Your task to perform on an android device: Open battery settings Image 0: 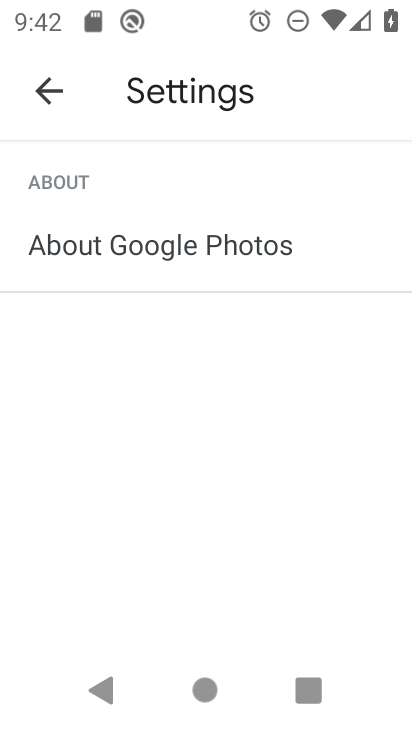
Step 0: press home button
Your task to perform on an android device: Open battery settings Image 1: 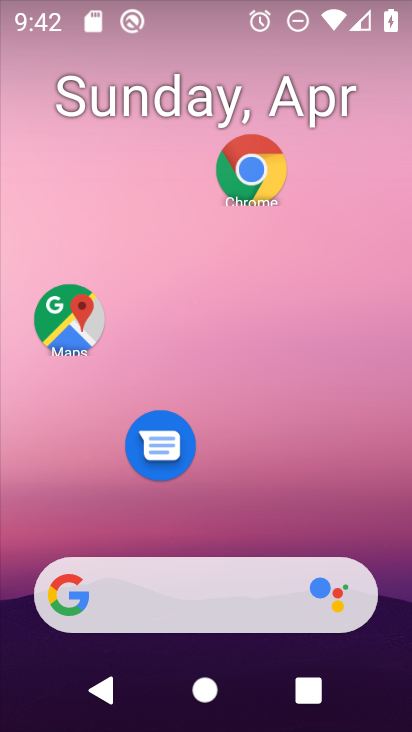
Step 1: drag from (278, 449) to (286, 44)
Your task to perform on an android device: Open battery settings Image 2: 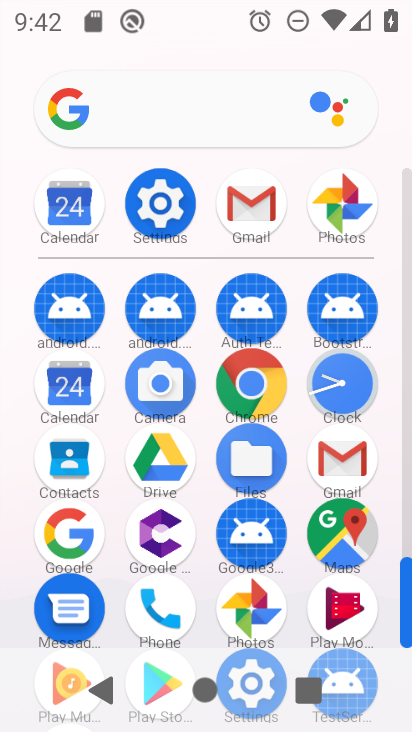
Step 2: click (160, 203)
Your task to perform on an android device: Open battery settings Image 3: 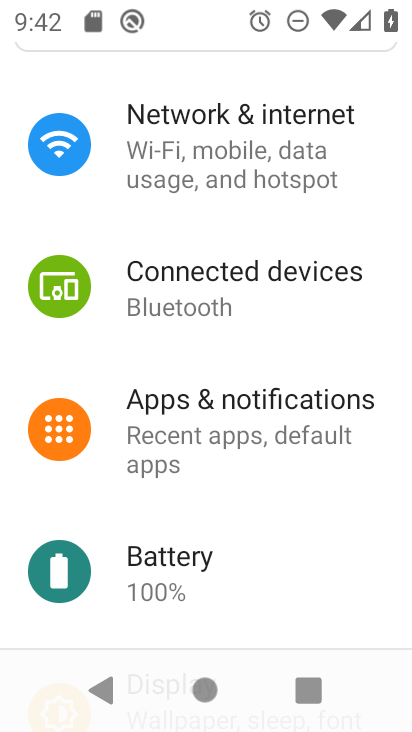
Step 3: click (161, 563)
Your task to perform on an android device: Open battery settings Image 4: 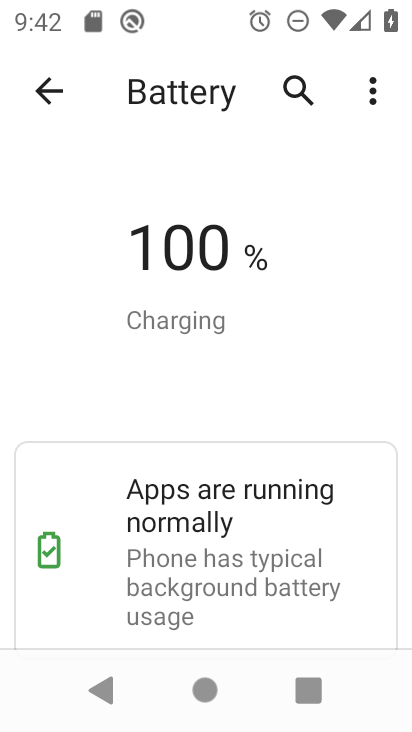
Step 4: click (366, 94)
Your task to perform on an android device: Open battery settings Image 5: 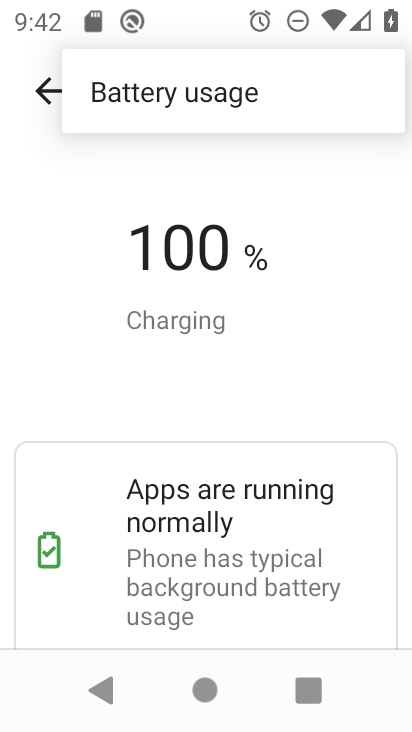
Step 5: click (310, 213)
Your task to perform on an android device: Open battery settings Image 6: 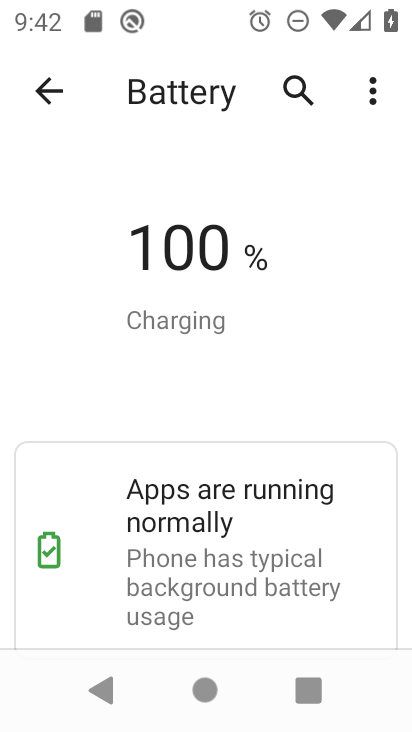
Step 6: task complete